Your task to perform on an android device: uninstall "Google Play Music" Image 0: 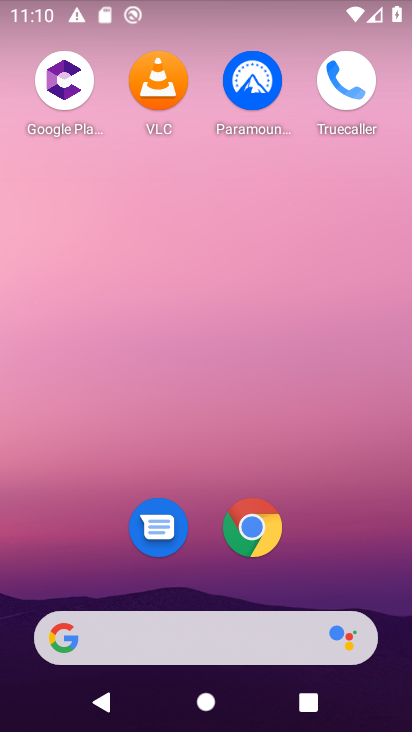
Step 0: drag from (184, 576) to (279, 17)
Your task to perform on an android device: uninstall "Google Play Music" Image 1: 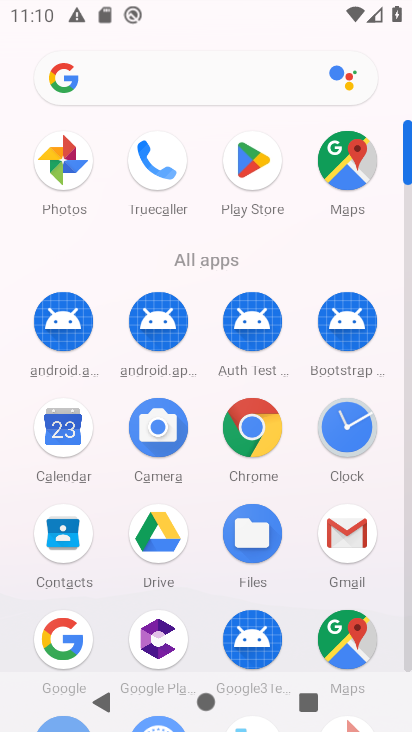
Step 1: click (269, 162)
Your task to perform on an android device: uninstall "Google Play Music" Image 2: 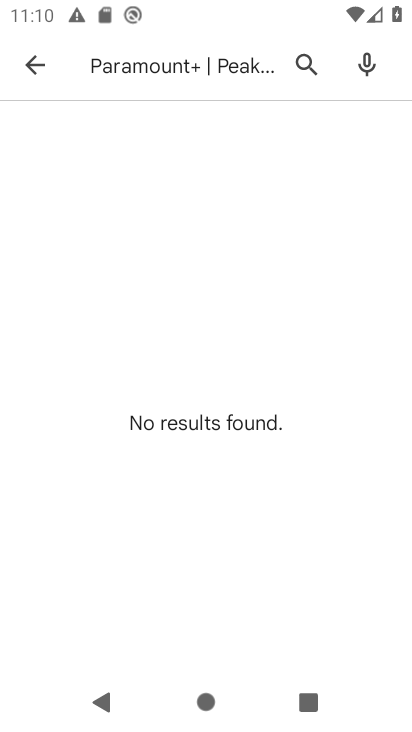
Step 2: click (312, 58)
Your task to perform on an android device: uninstall "Google Play Music" Image 3: 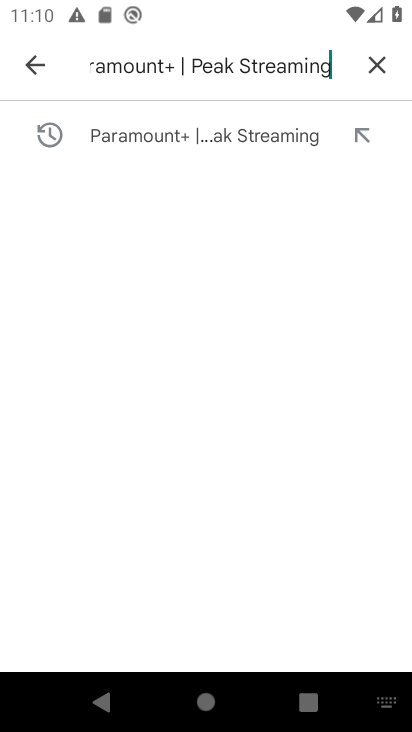
Step 3: click (377, 71)
Your task to perform on an android device: uninstall "Google Play Music" Image 4: 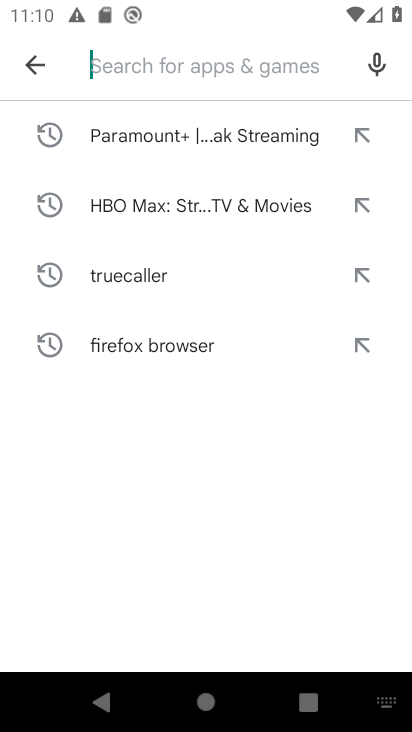
Step 4: click (169, 62)
Your task to perform on an android device: uninstall "Google Play Music" Image 5: 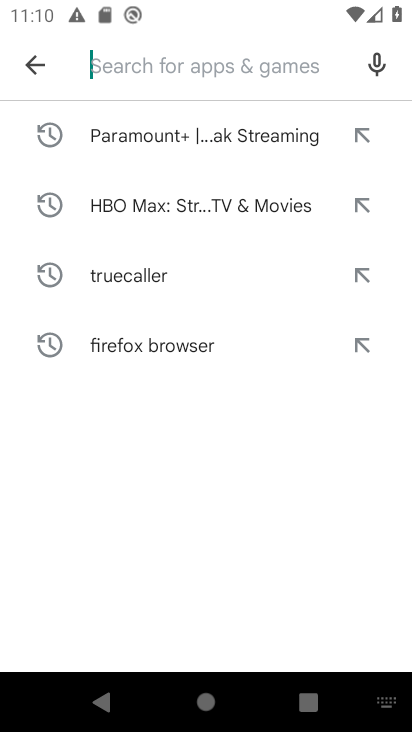
Step 5: type "Google Play Music"
Your task to perform on an android device: uninstall "Google Play Music" Image 6: 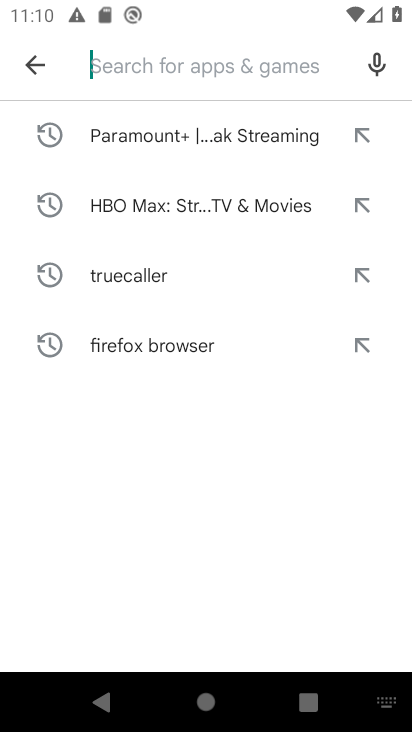
Step 6: click (231, 505)
Your task to perform on an android device: uninstall "Google Play Music" Image 7: 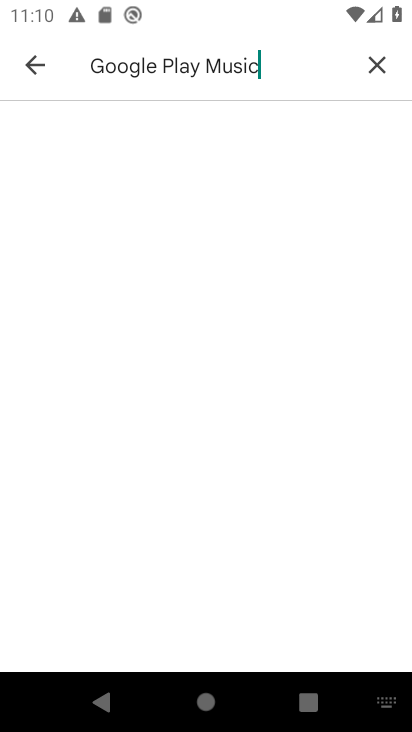
Step 7: task complete